Your task to perform on an android device: What's the weather today? Image 0: 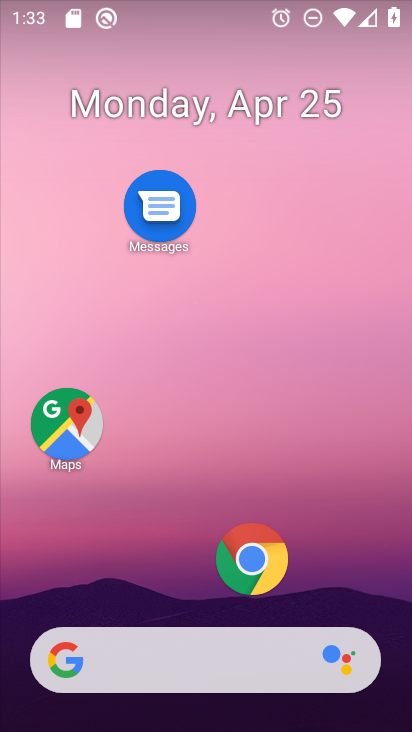
Step 0: drag from (189, 555) to (185, 53)
Your task to perform on an android device: What's the weather today? Image 1: 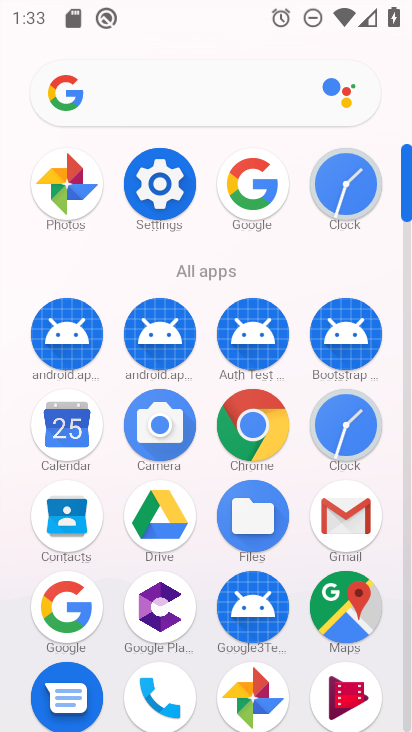
Step 1: click (251, 188)
Your task to perform on an android device: What's the weather today? Image 2: 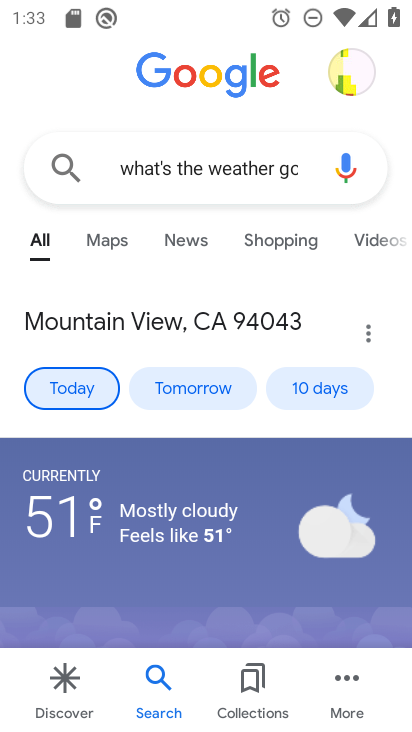
Step 2: click (276, 177)
Your task to perform on an android device: What's the weather today? Image 3: 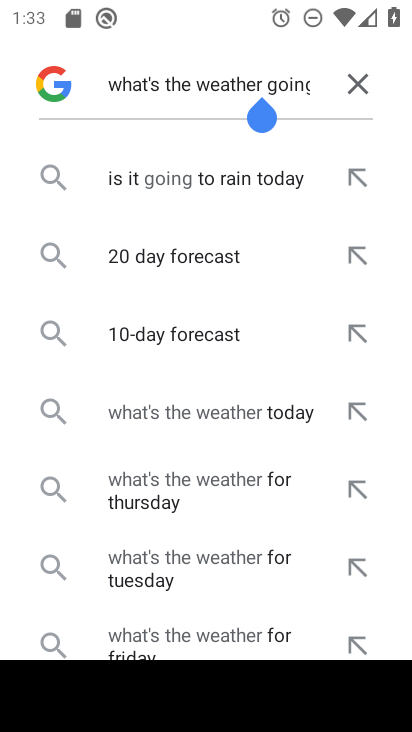
Step 3: click (354, 81)
Your task to perform on an android device: What's the weather today? Image 4: 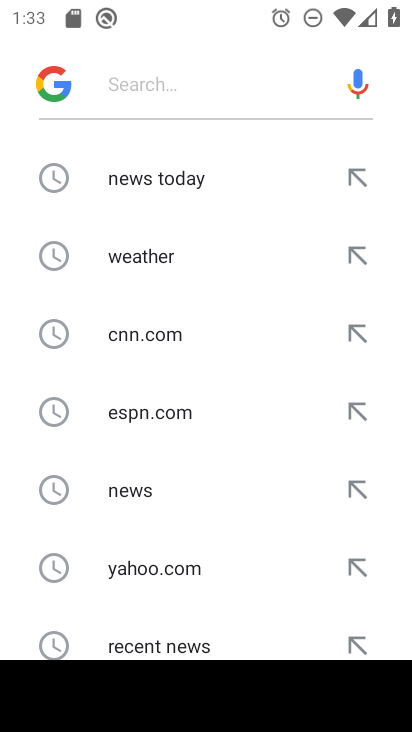
Step 4: type "weather today"
Your task to perform on an android device: What's the weather today? Image 5: 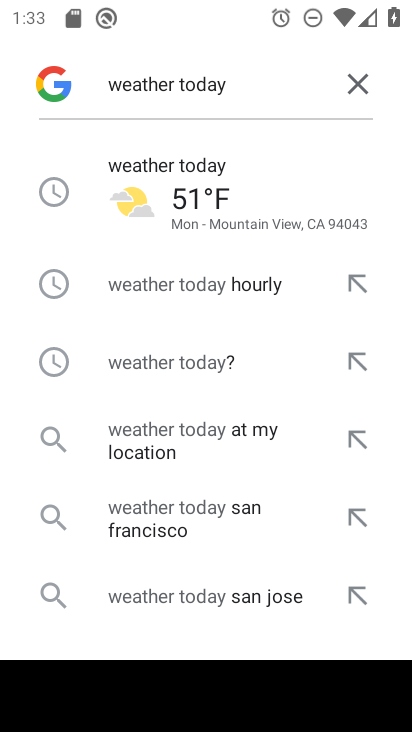
Step 5: click (155, 178)
Your task to perform on an android device: What's the weather today? Image 6: 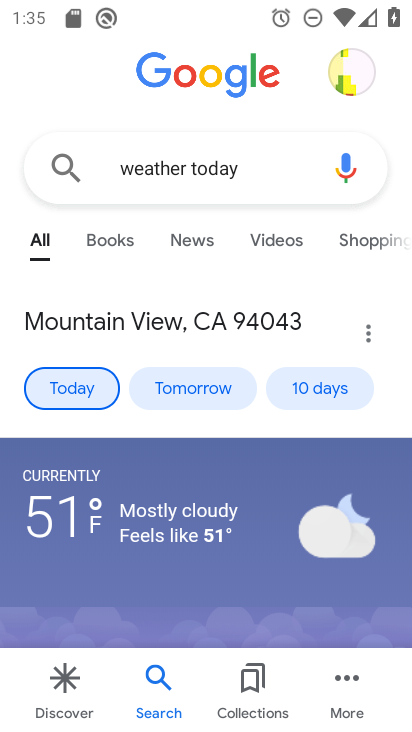
Step 6: task complete